Your task to perform on an android device: Open Chrome and go to settings Image 0: 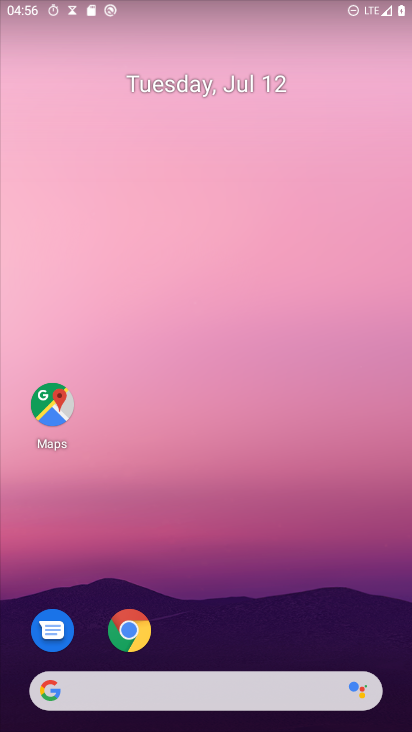
Step 0: drag from (338, 682) to (409, 30)
Your task to perform on an android device: Open Chrome and go to settings Image 1: 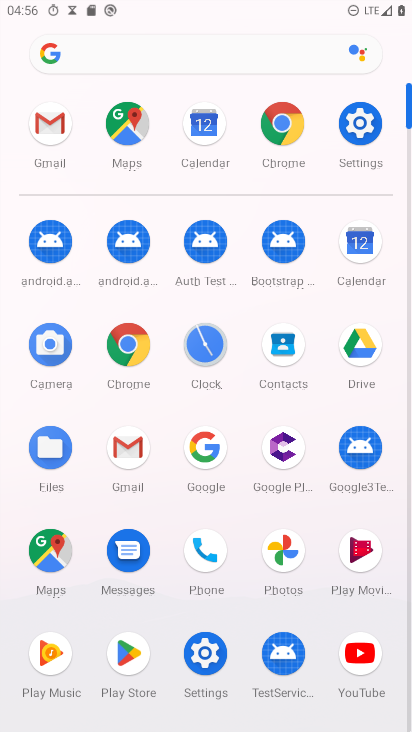
Step 1: click (136, 352)
Your task to perform on an android device: Open Chrome and go to settings Image 2: 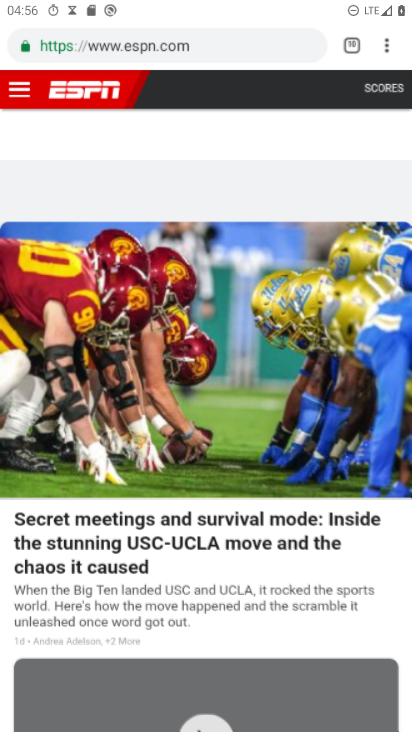
Step 2: task complete